Your task to perform on an android device: toggle wifi Image 0: 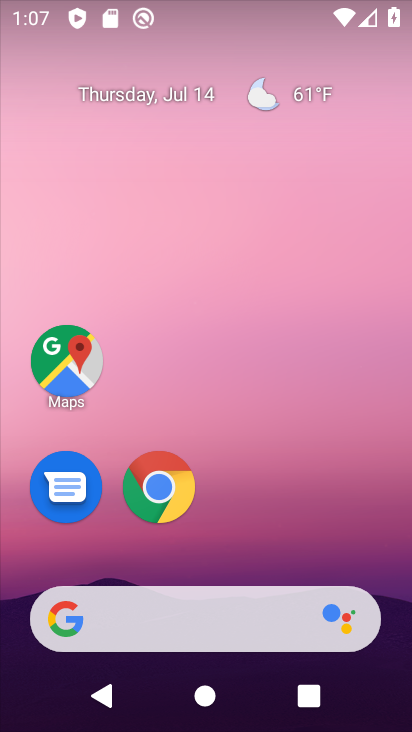
Step 0: drag from (375, 524) to (373, 146)
Your task to perform on an android device: toggle wifi Image 1: 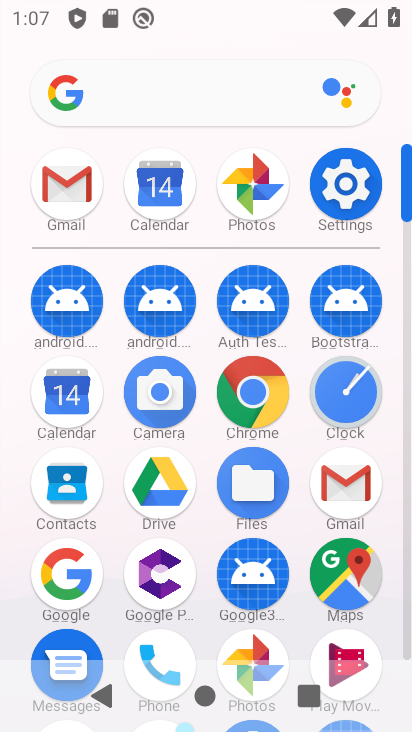
Step 1: click (352, 201)
Your task to perform on an android device: toggle wifi Image 2: 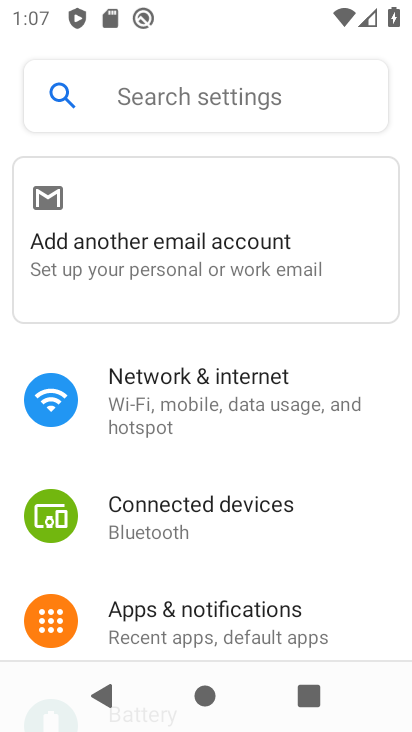
Step 2: drag from (365, 516) to (370, 417)
Your task to perform on an android device: toggle wifi Image 3: 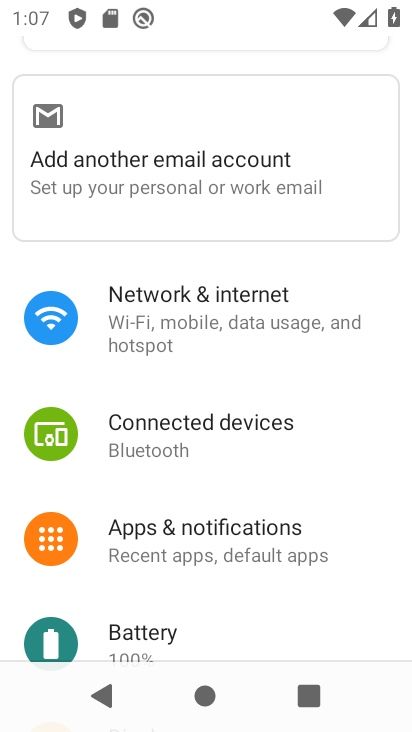
Step 3: drag from (364, 557) to (372, 428)
Your task to perform on an android device: toggle wifi Image 4: 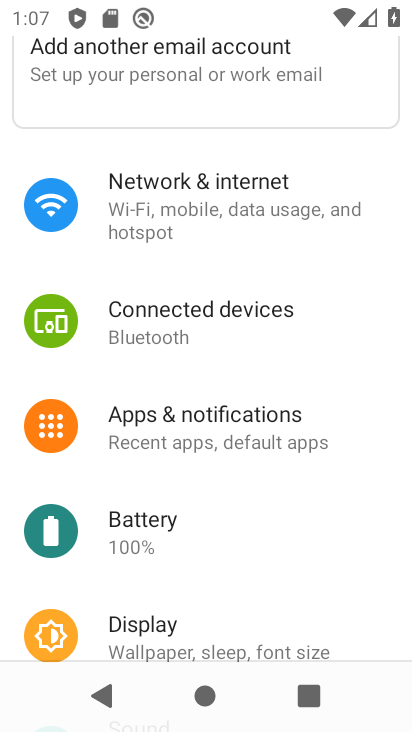
Step 4: drag from (360, 545) to (367, 410)
Your task to perform on an android device: toggle wifi Image 5: 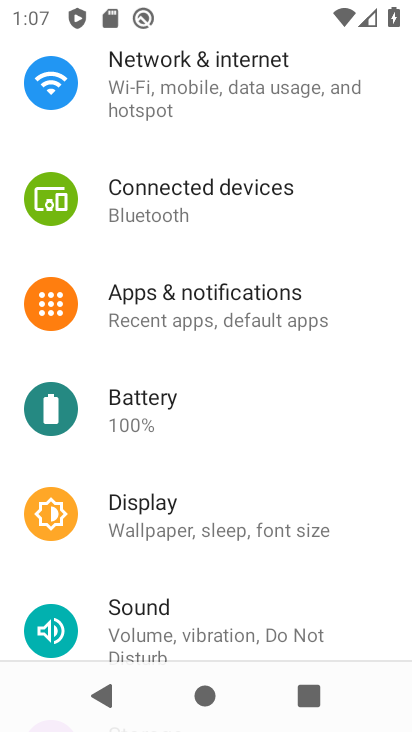
Step 5: drag from (361, 536) to (366, 395)
Your task to perform on an android device: toggle wifi Image 6: 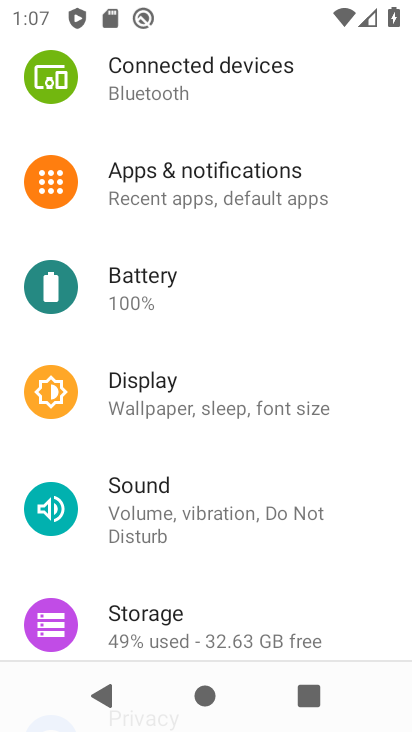
Step 6: drag from (371, 524) to (368, 398)
Your task to perform on an android device: toggle wifi Image 7: 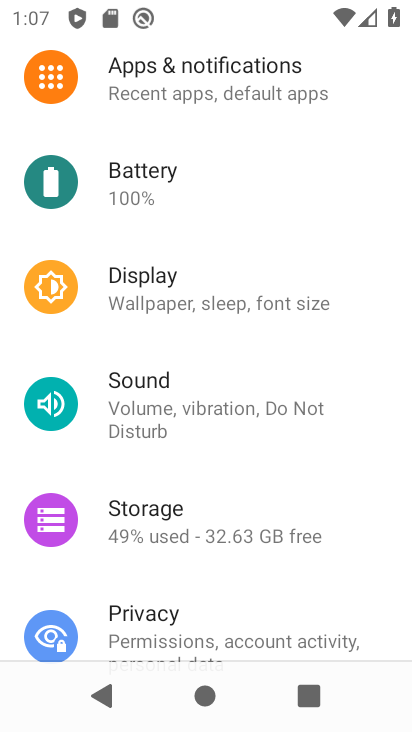
Step 7: drag from (369, 541) to (373, 413)
Your task to perform on an android device: toggle wifi Image 8: 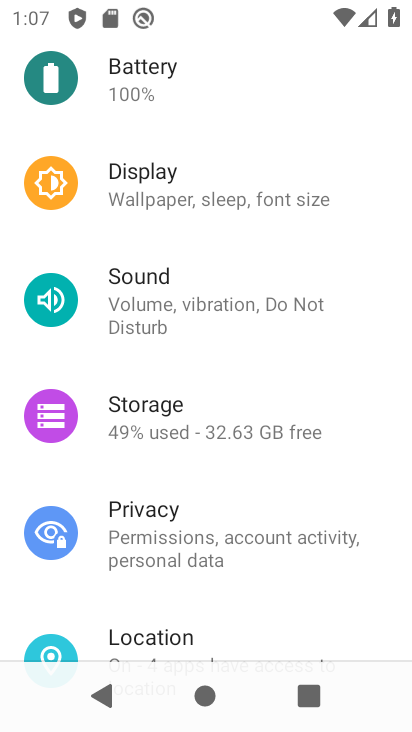
Step 8: drag from (360, 536) to (365, 399)
Your task to perform on an android device: toggle wifi Image 9: 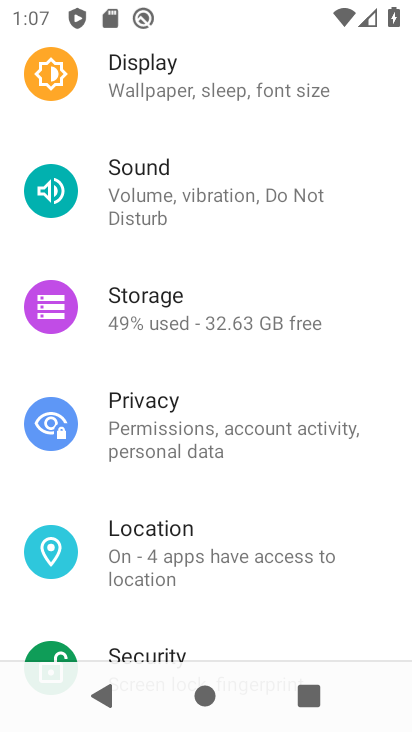
Step 9: drag from (359, 552) to (368, 372)
Your task to perform on an android device: toggle wifi Image 10: 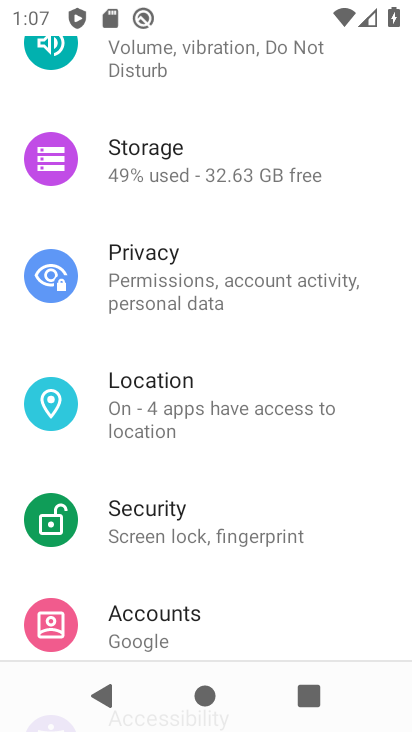
Step 10: drag from (354, 557) to (355, 395)
Your task to perform on an android device: toggle wifi Image 11: 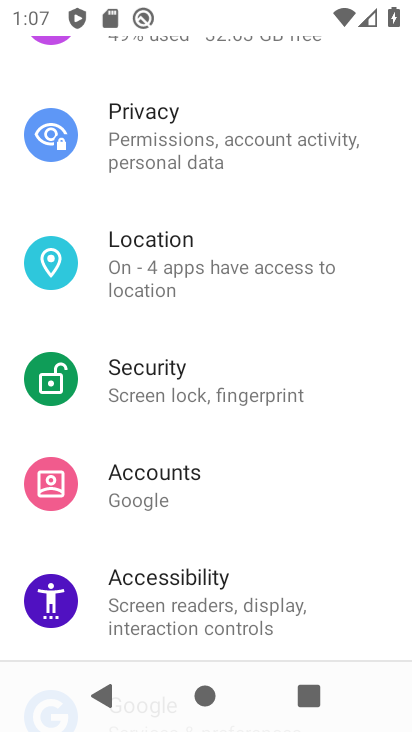
Step 11: drag from (329, 562) to (334, 409)
Your task to perform on an android device: toggle wifi Image 12: 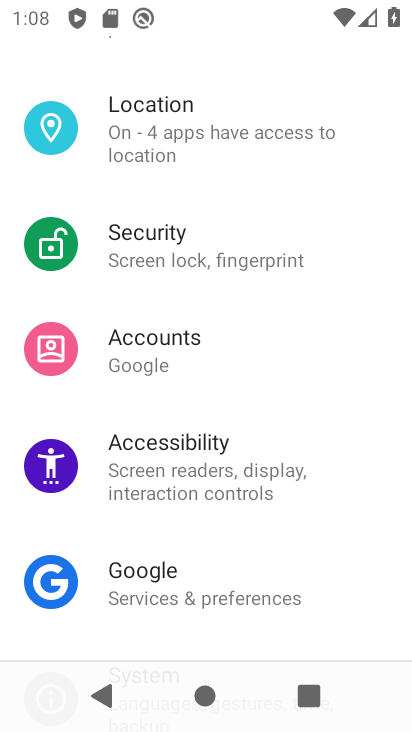
Step 12: drag from (326, 319) to (328, 483)
Your task to perform on an android device: toggle wifi Image 13: 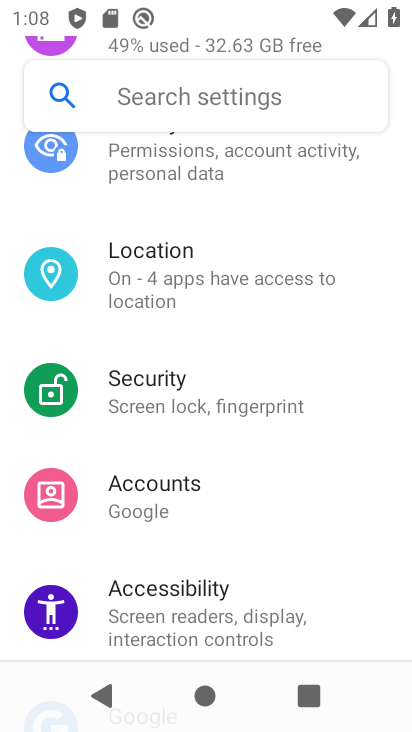
Step 13: drag from (351, 367) to (351, 508)
Your task to perform on an android device: toggle wifi Image 14: 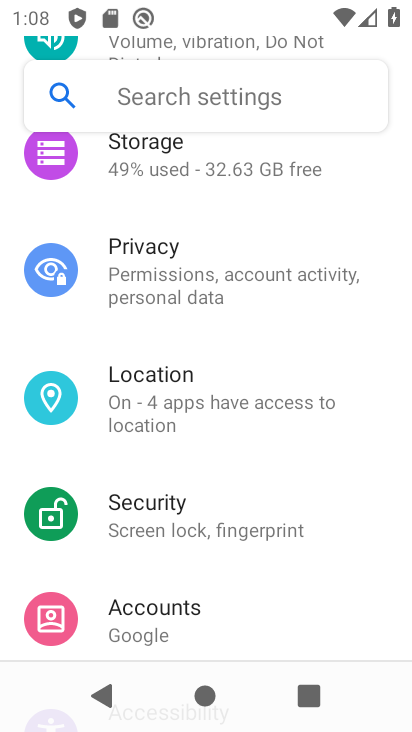
Step 14: drag from (356, 377) to (361, 497)
Your task to perform on an android device: toggle wifi Image 15: 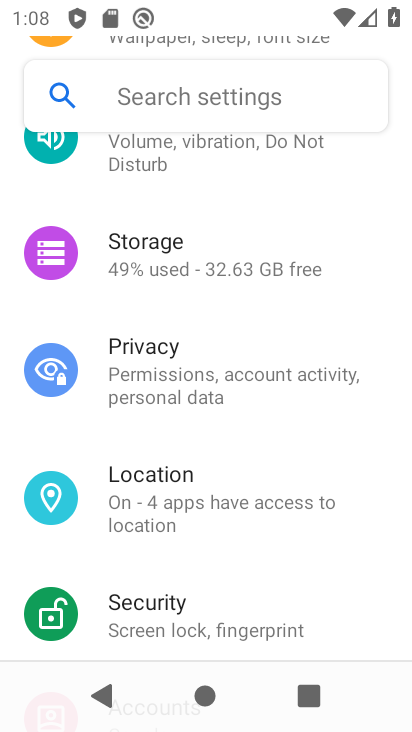
Step 15: drag from (369, 376) to (372, 552)
Your task to perform on an android device: toggle wifi Image 16: 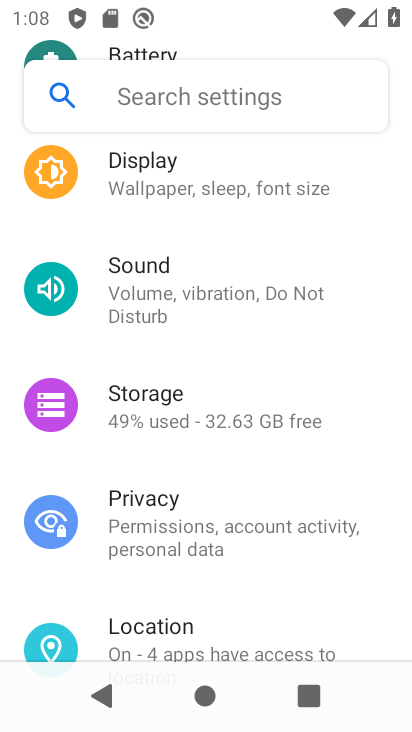
Step 16: drag from (357, 351) to (358, 550)
Your task to perform on an android device: toggle wifi Image 17: 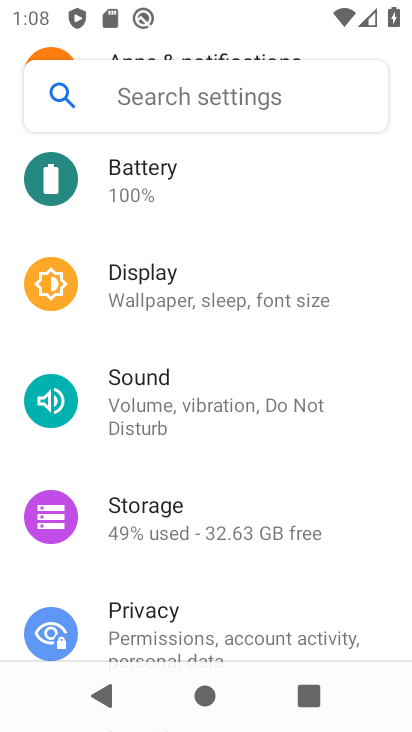
Step 17: drag from (360, 336) to (361, 499)
Your task to perform on an android device: toggle wifi Image 18: 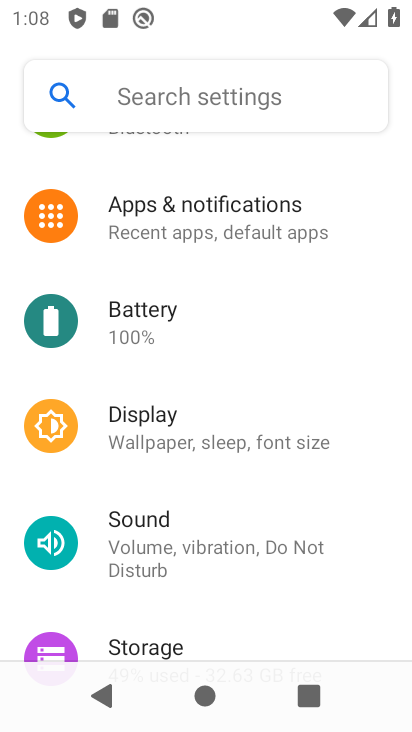
Step 18: drag from (364, 330) to (363, 506)
Your task to perform on an android device: toggle wifi Image 19: 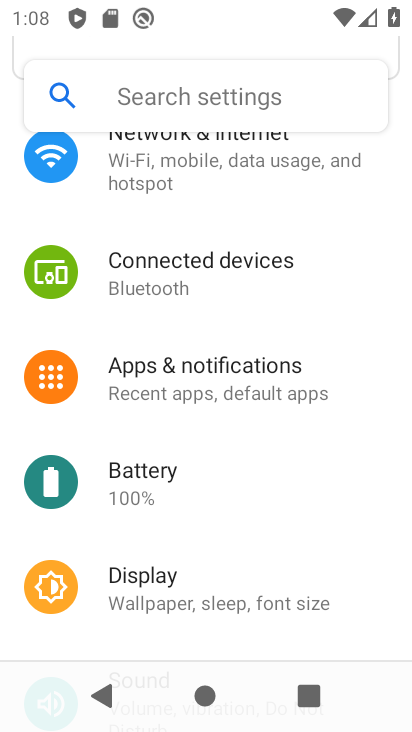
Step 19: drag from (358, 297) to (355, 475)
Your task to perform on an android device: toggle wifi Image 20: 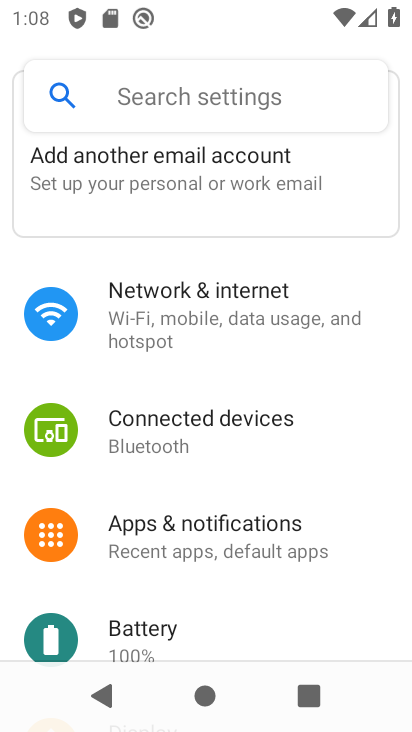
Step 20: click (317, 304)
Your task to perform on an android device: toggle wifi Image 21: 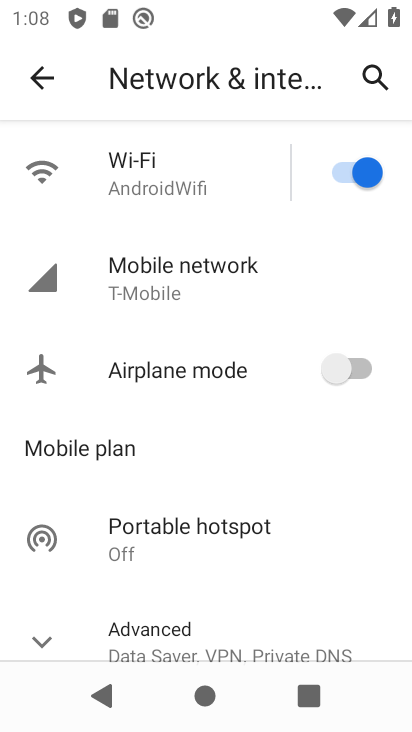
Step 21: click (360, 179)
Your task to perform on an android device: toggle wifi Image 22: 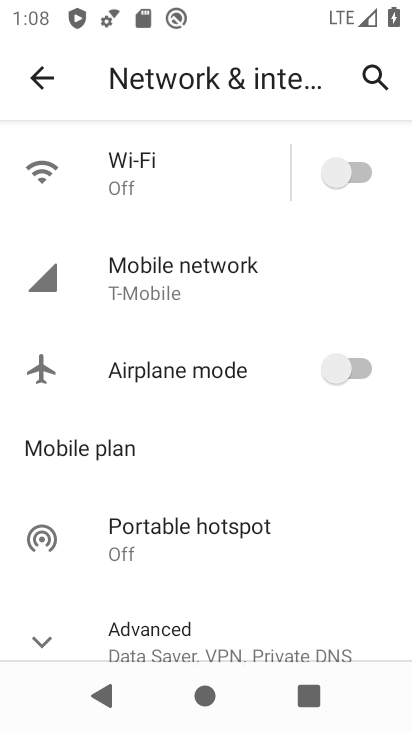
Step 22: task complete